Your task to perform on an android device: turn off smart reply in the gmail app Image 0: 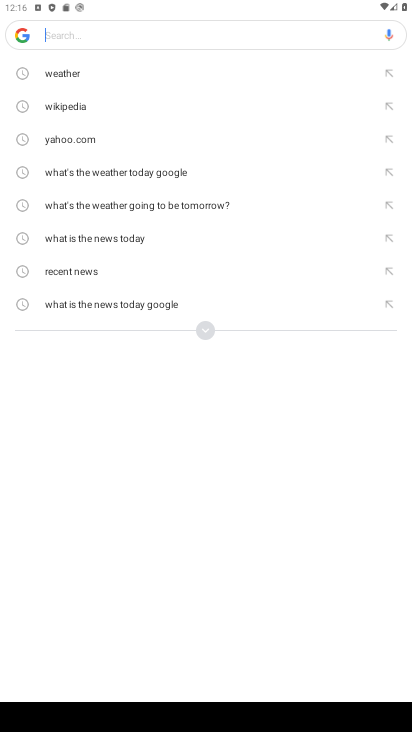
Step 0: press home button
Your task to perform on an android device: turn off smart reply in the gmail app Image 1: 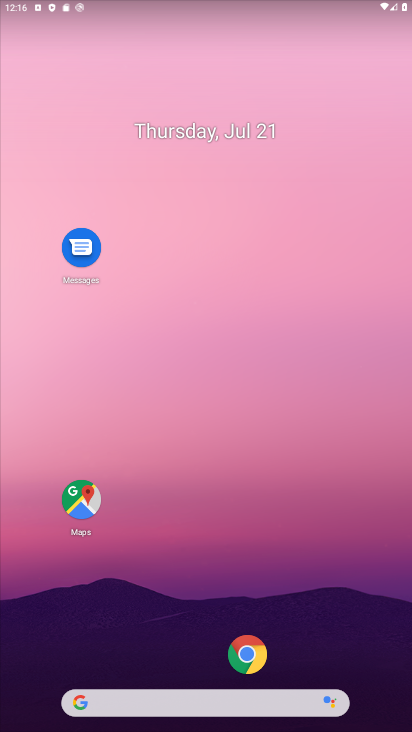
Step 1: drag from (179, 582) to (183, 22)
Your task to perform on an android device: turn off smart reply in the gmail app Image 2: 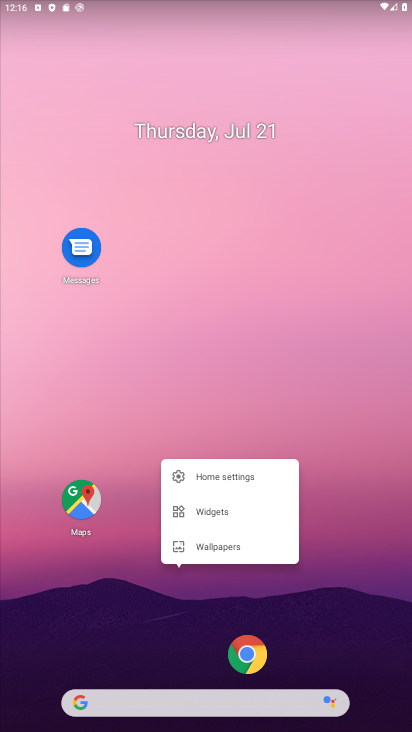
Step 2: drag from (162, 644) to (134, 94)
Your task to perform on an android device: turn off smart reply in the gmail app Image 3: 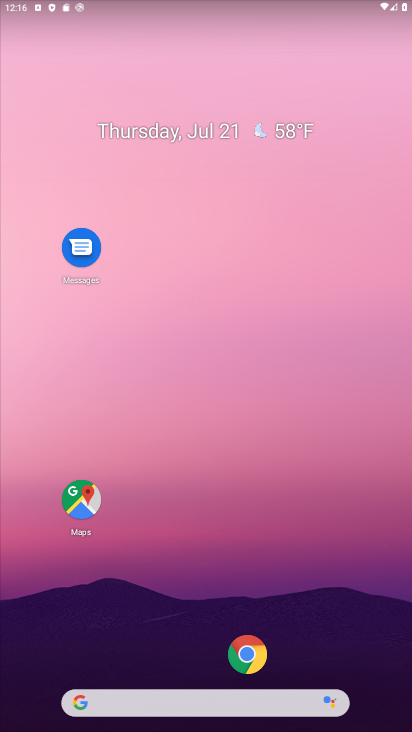
Step 3: drag from (185, 655) to (245, 231)
Your task to perform on an android device: turn off smart reply in the gmail app Image 4: 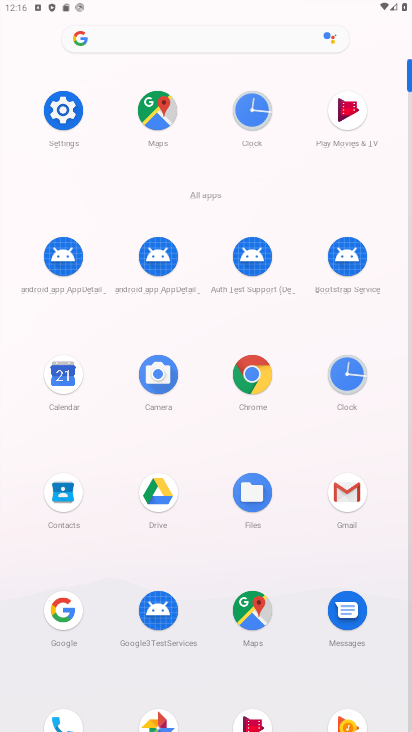
Step 4: click (338, 494)
Your task to perform on an android device: turn off smart reply in the gmail app Image 5: 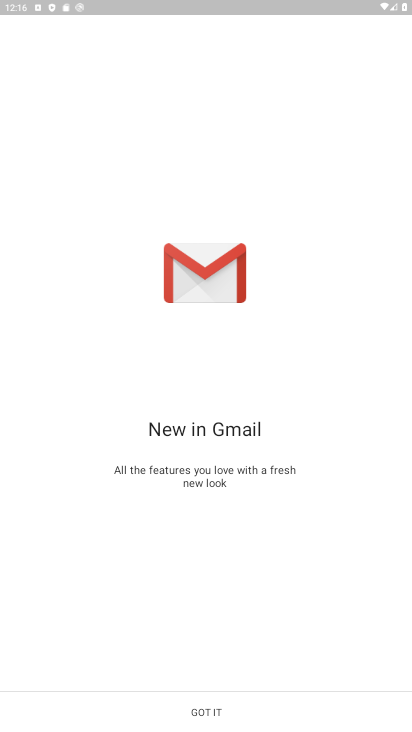
Step 5: click (199, 720)
Your task to perform on an android device: turn off smart reply in the gmail app Image 6: 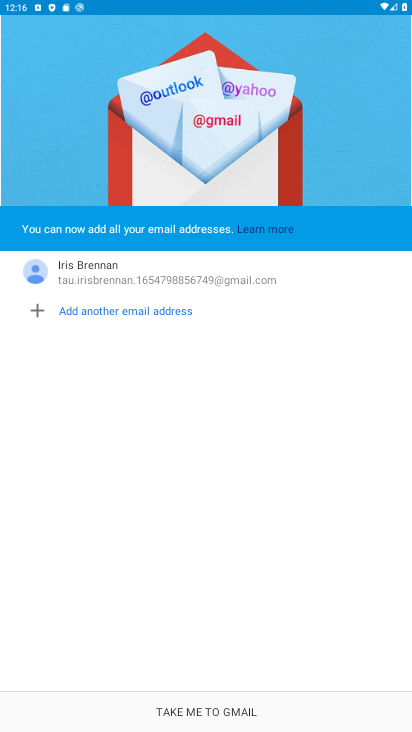
Step 6: click (199, 720)
Your task to perform on an android device: turn off smart reply in the gmail app Image 7: 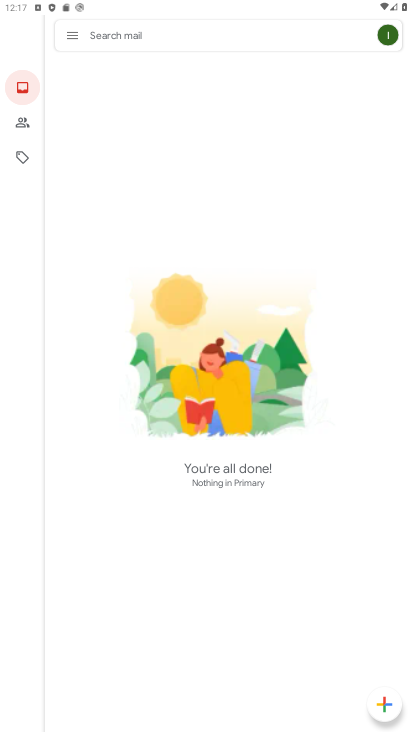
Step 7: click (76, 45)
Your task to perform on an android device: turn off smart reply in the gmail app Image 8: 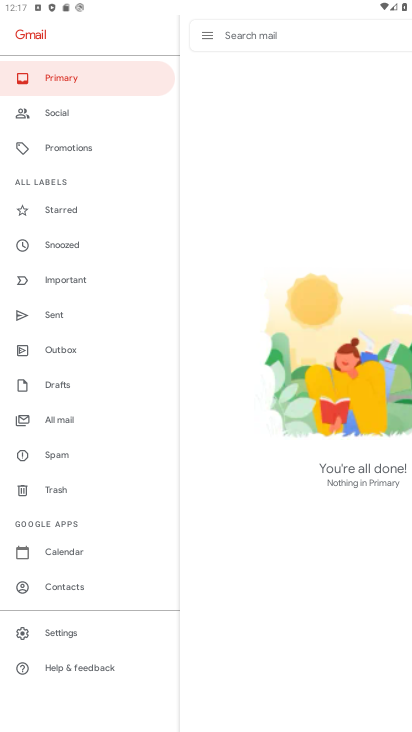
Step 8: task complete